Your task to perform on an android device: choose inbox layout in the gmail app Image 0: 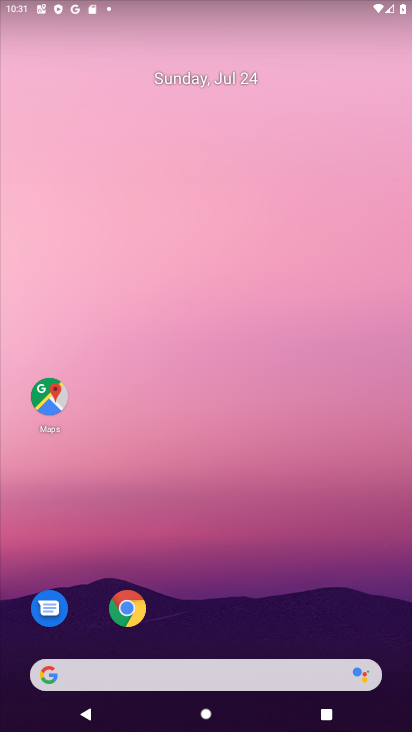
Step 0: drag from (227, 624) to (213, 35)
Your task to perform on an android device: choose inbox layout in the gmail app Image 1: 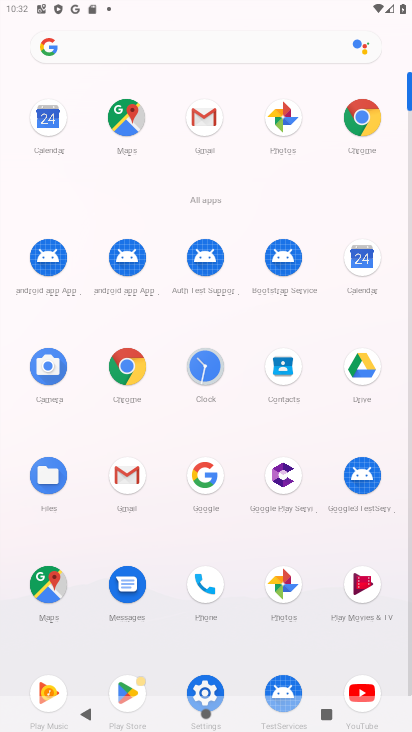
Step 1: click (124, 470)
Your task to perform on an android device: choose inbox layout in the gmail app Image 2: 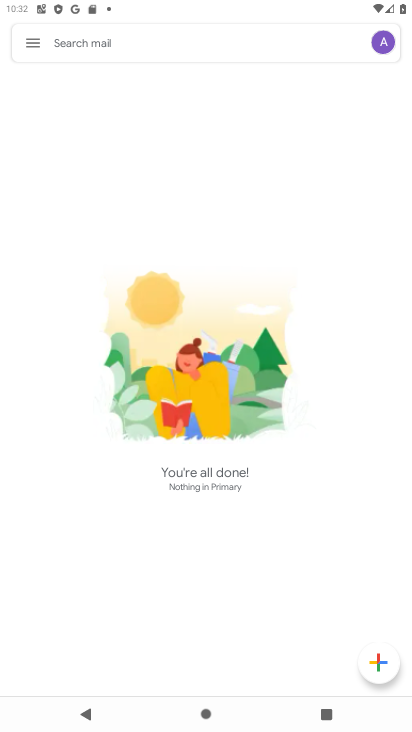
Step 2: click (29, 41)
Your task to perform on an android device: choose inbox layout in the gmail app Image 3: 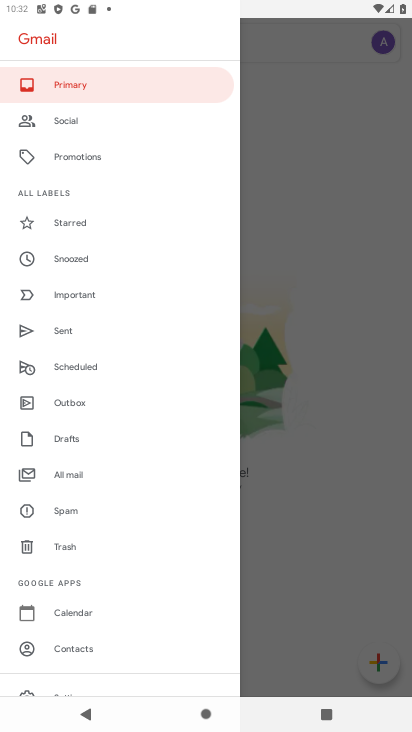
Step 3: drag from (81, 631) to (155, 34)
Your task to perform on an android device: choose inbox layout in the gmail app Image 4: 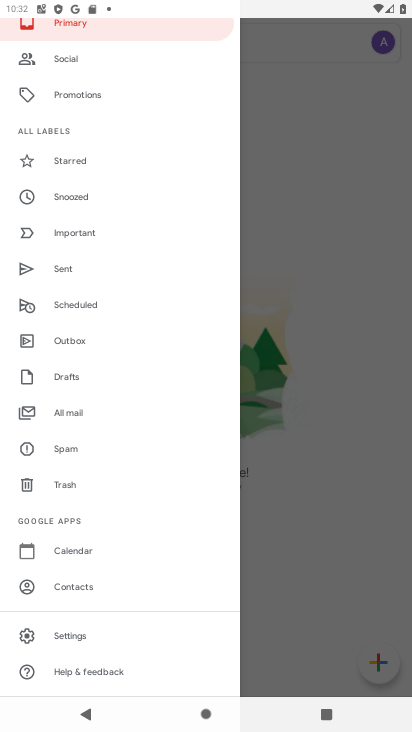
Step 4: click (89, 631)
Your task to perform on an android device: choose inbox layout in the gmail app Image 5: 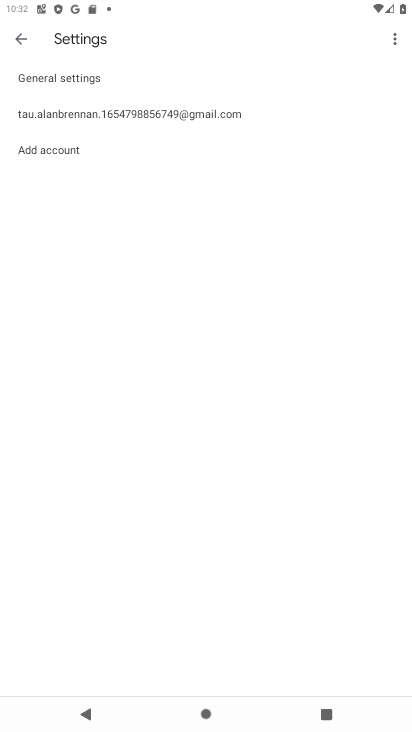
Step 5: click (223, 111)
Your task to perform on an android device: choose inbox layout in the gmail app Image 6: 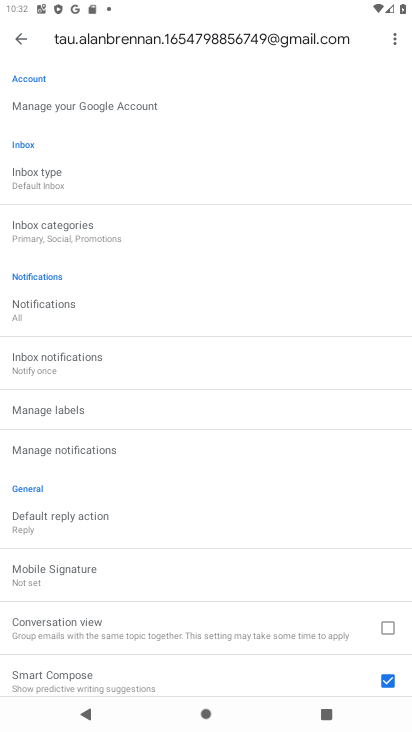
Step 6: click (74, 180)
Your task to perform on an android device: choose inbox layout in the gmail app Image 7: 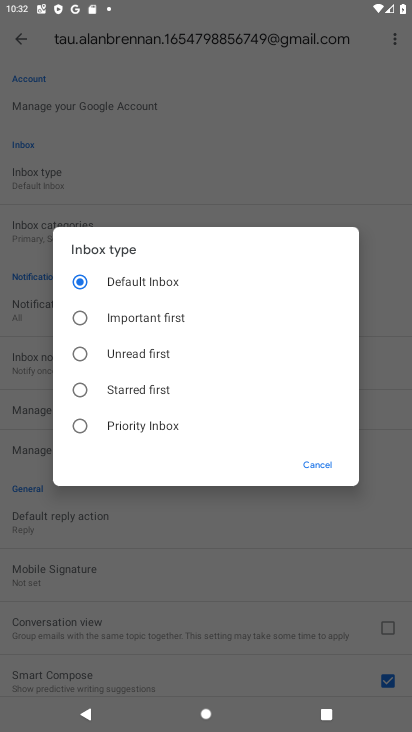
Step 7: click (78, 427)
Your task to perform on an android device: choose inbox layout in the gmail app Image 8: 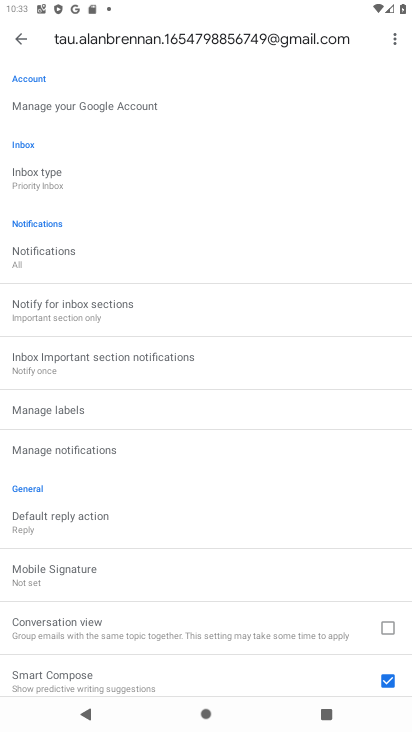
Step 8: task complete